Your task to perform on an android device: turn on bluetooth scan Image 0: 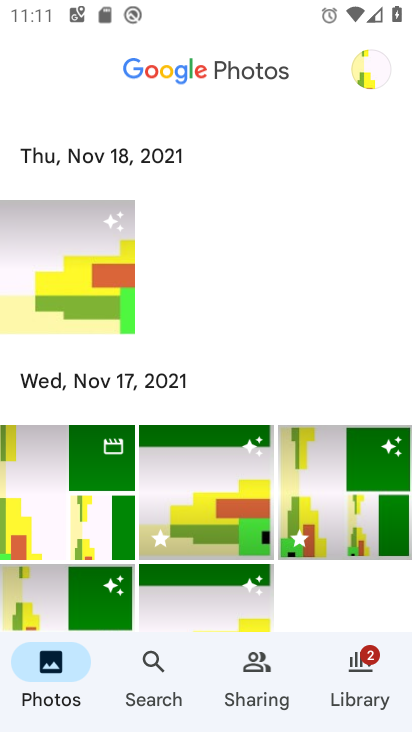
Step 0: press home button
Your task to perform on an android device: turn on bluetooth scan Image 1: 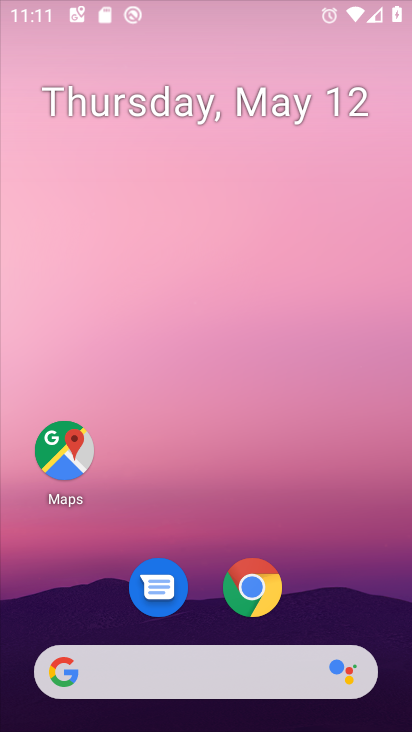
Step 1: drag from (401, 644) to (279, 132)
Your task to perform on an android device: turn on bluetooth scan Image 2: 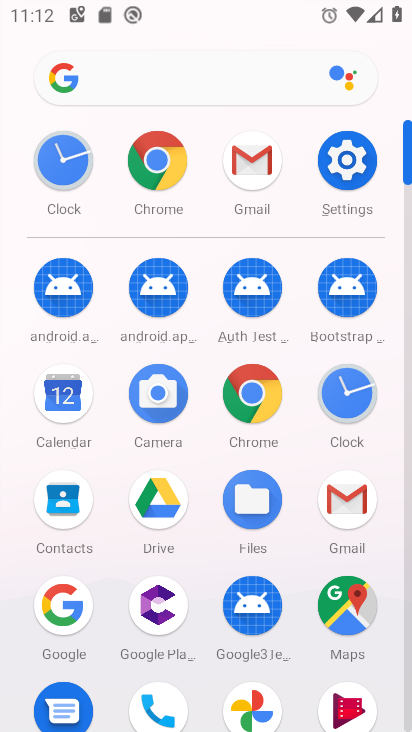
Step 2: click (331, 168)
Your task to perform on an android device: turn on bluetooth scan Image 3: 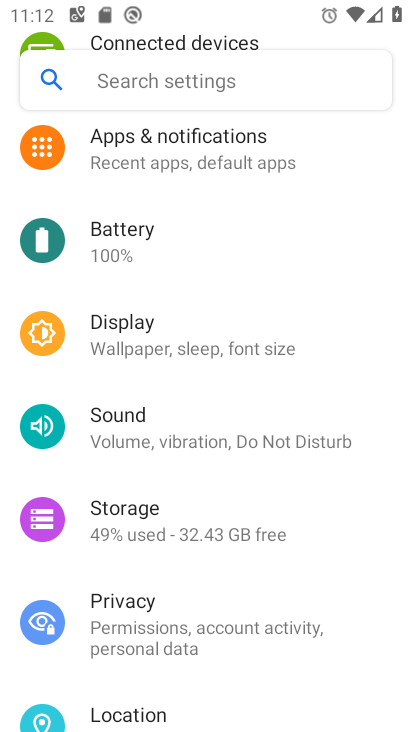
Step 3: click (177, 234)
Your task to perform on an android device: turn on bluetooth scan Image 4: 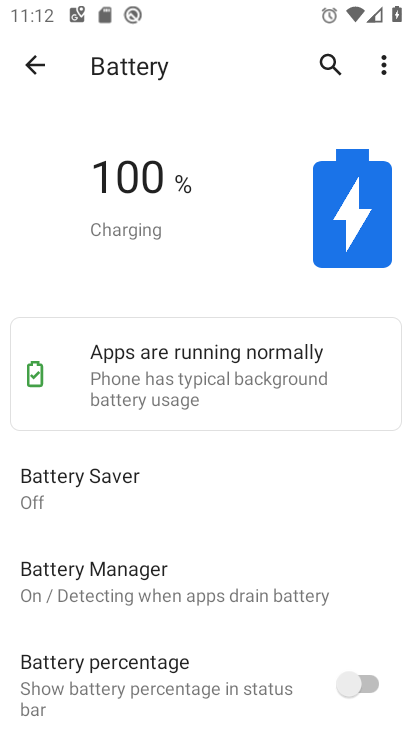
Step 4: press back button
Your task to perform on an android device: turn on bluetooth scan Image 5: 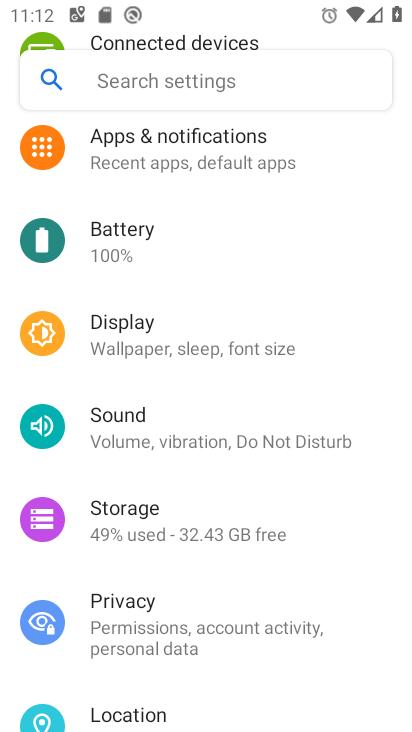
Step 5: click (160, 700)
Your task to perform on an android device: turn on bluetooth scan Image 6: 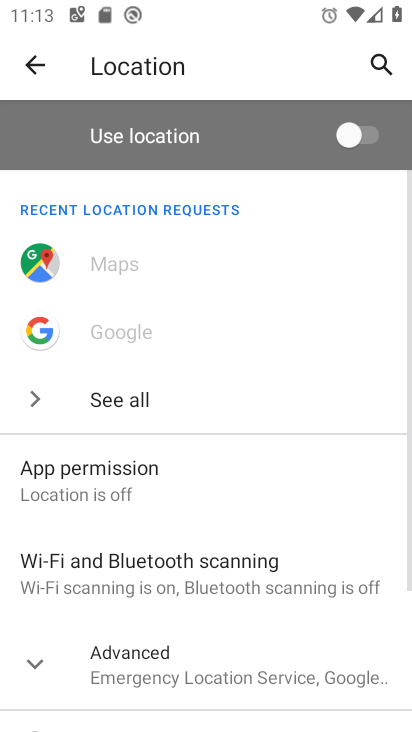
Step 6: click (224, 594)
Your task to perform on an android device: turn on bluetooth scan Image 7: 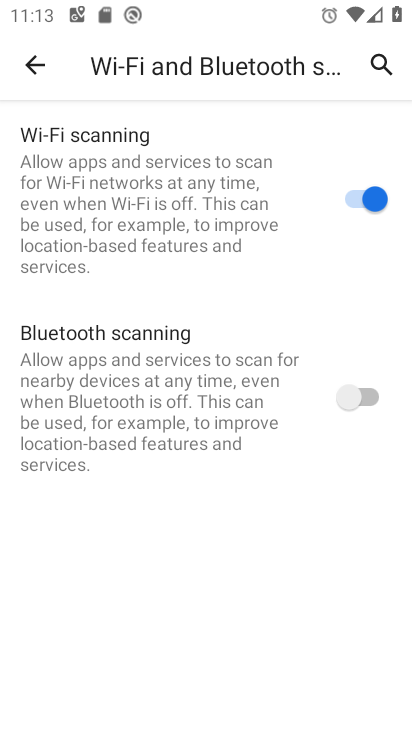
Step 7: click (344, 420)
Your task to perform on an android device: turn on bluetooth scan Image 8: 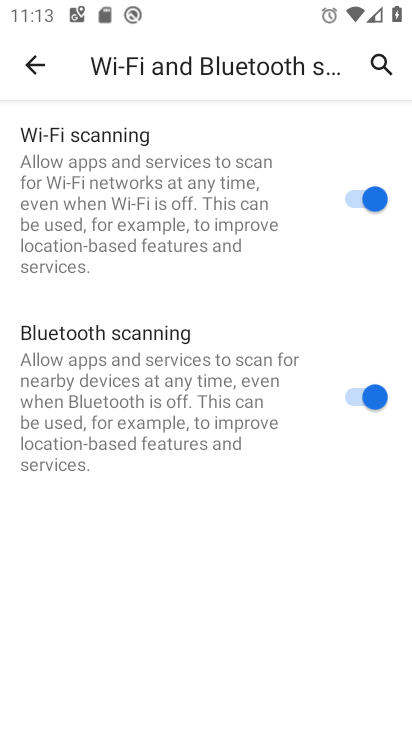
Step 8: task complete